Your task to perform on an android device: turn off sleep mode Image 0: 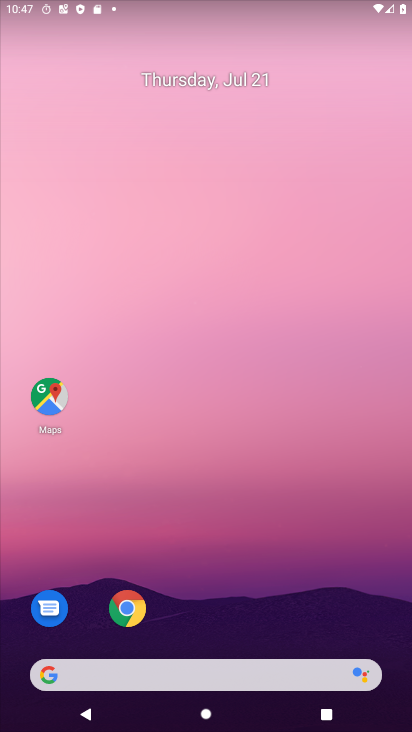
Step 0: drag from (202, 564) to (184, 301)
Your task to perform on an android device: turn off sleep mode Image 1: 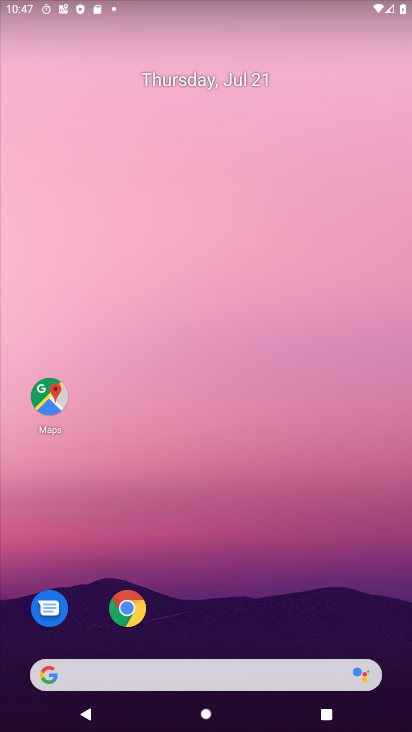
Step 1: drag from (198, 555) to (201, 85)
Your task to perform on an android device: turn off sleep mode Image 2: 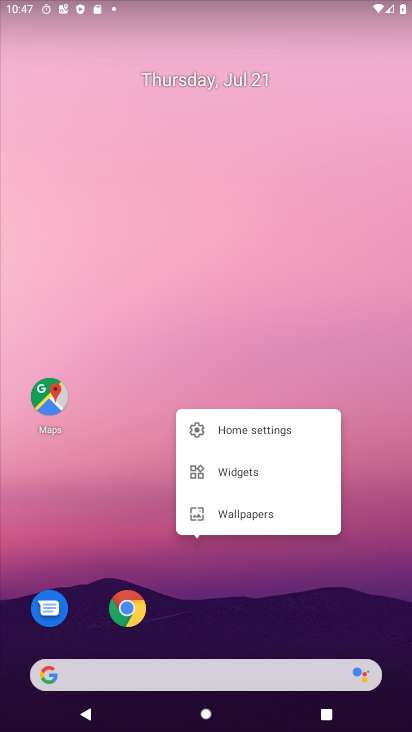
Step 2: click (207, 616)
Your task to perform on an android device: turn off sleep mode Image 3: 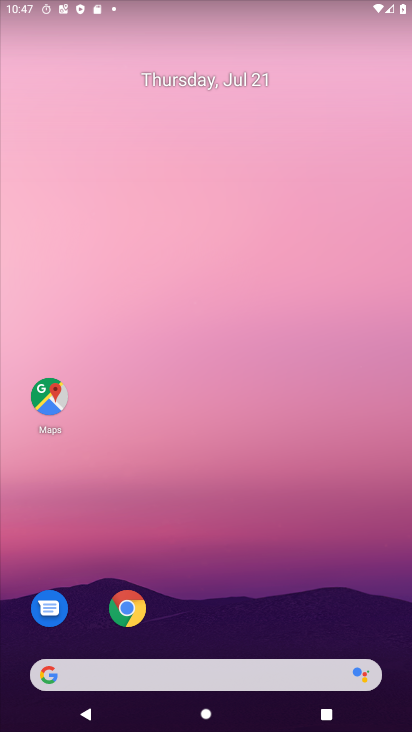
Step 3: task complete